Your task to perform on an android device: Open CNN.com Image 0: 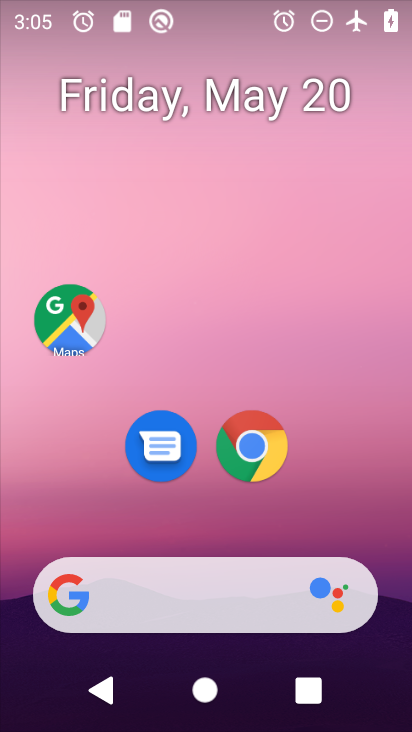
Step 0: click (256, 446)
Your task to perform on an android device: Open CNN.com Image 1: 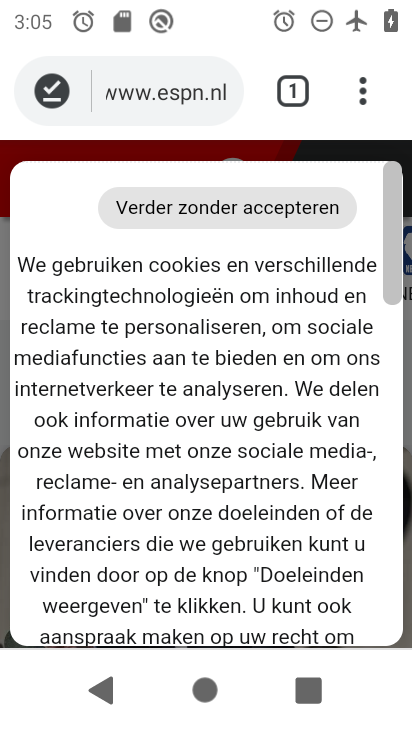
Step 1: click (119, 95)
Your task to perform on an android device: Open CNN.com Image 2: 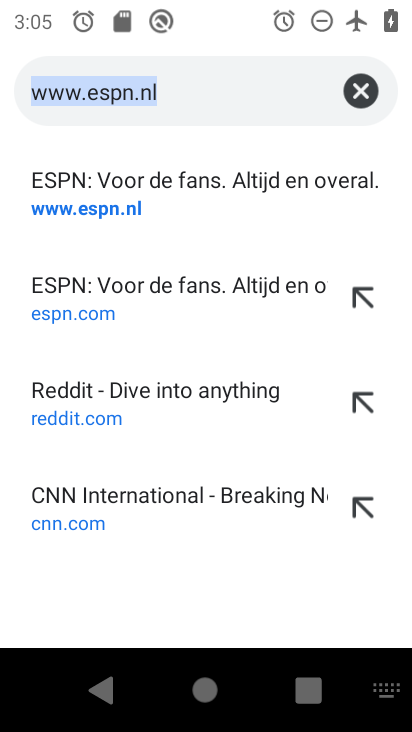
Step 2: click (74, 526)
Your task to perform on an android device: Open CNN.com Image 3: 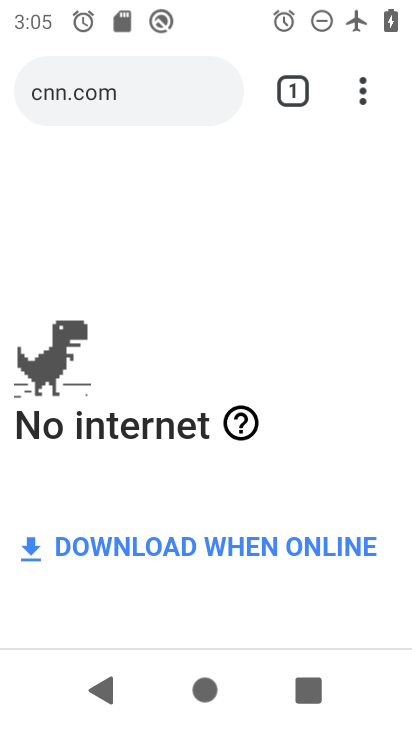
Step 3: task complete